Your task to perform on an android device: allow notifications from all sites in the chrome app Image 0: 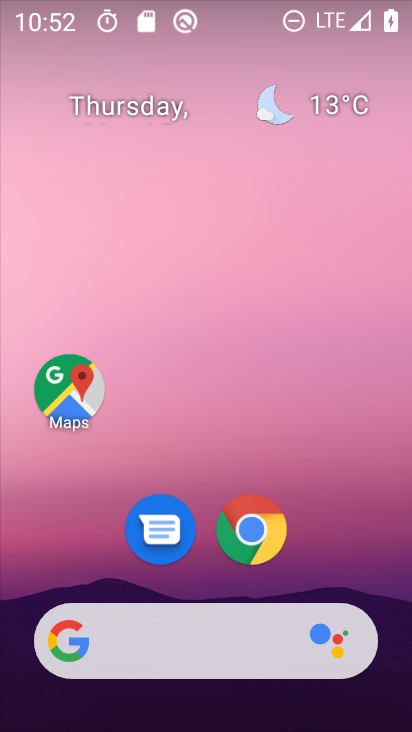
Step 0: click (272, 543)
Your task to perform on an android device: allow notifications from all sites in the chrome app Image 1: 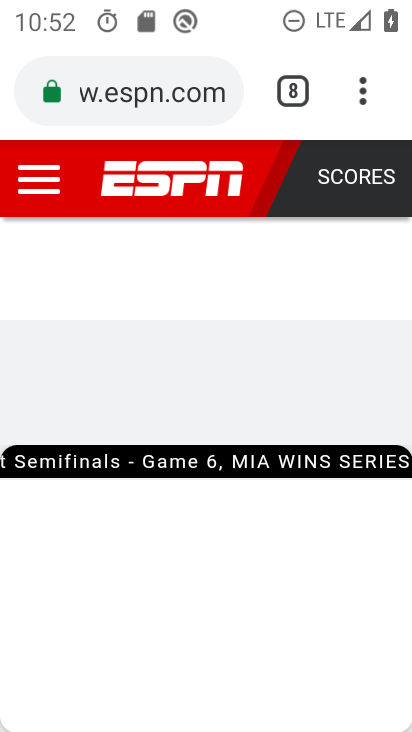
Step 1: click (362, 76)
Your task to perform on an android device: allow notifications from all sites in the chrome app Image 2: 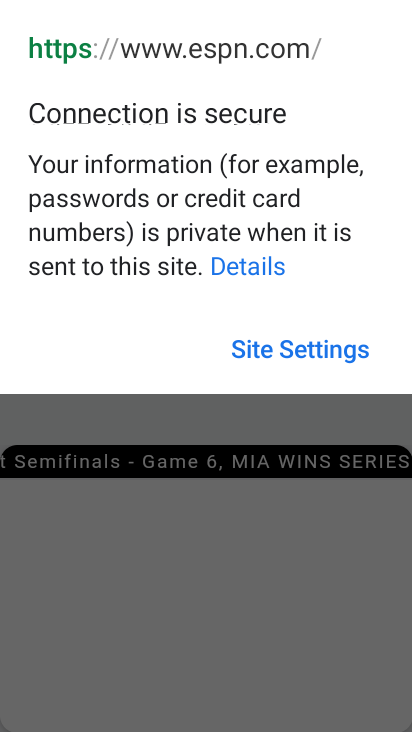
Step 2: press back button
Your task to perform on an android device: allow notifications from all sites in the chrome app Image 3: 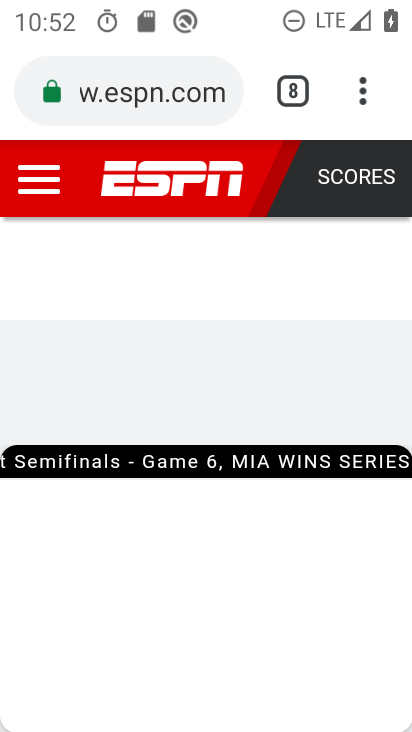
Step 3: click (369, 92)
Your task to perform on an android device: allow notifications from all sites in the chrome app Image 4: 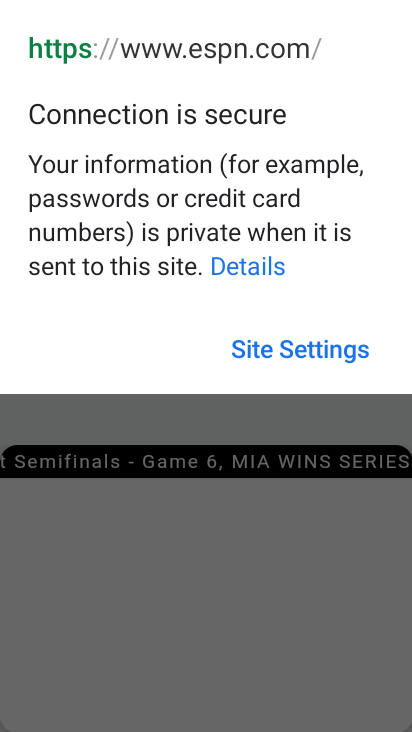
Step 4: press back button
Your task to perform on an android device: allow notifications from all sites in the chrome app Image 5: 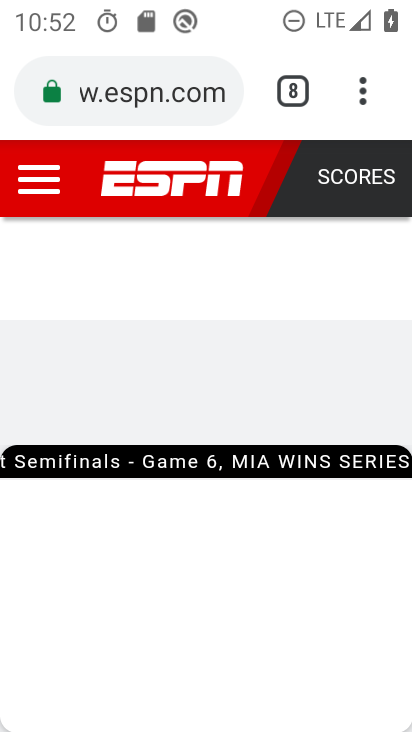
Step 5: click (360, 79)
Your task to perform on an android device: allow notifications from all sites in the chrome app Image 6: 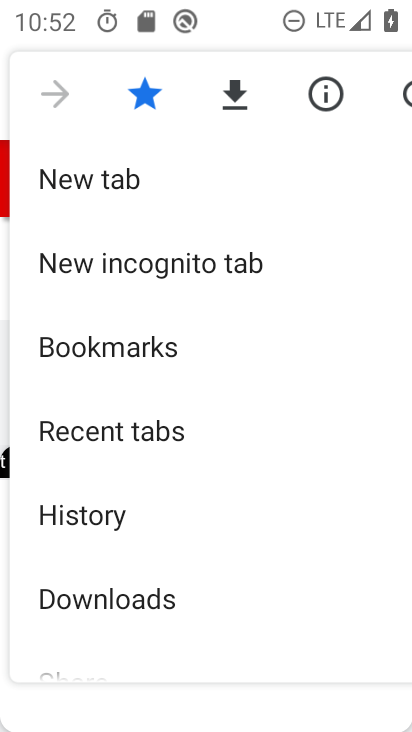
Step 6: drag from (247, 578) to (115, 247)
Your task to perform on an android device: allow notifications from all sites in the chrome app Image 7: 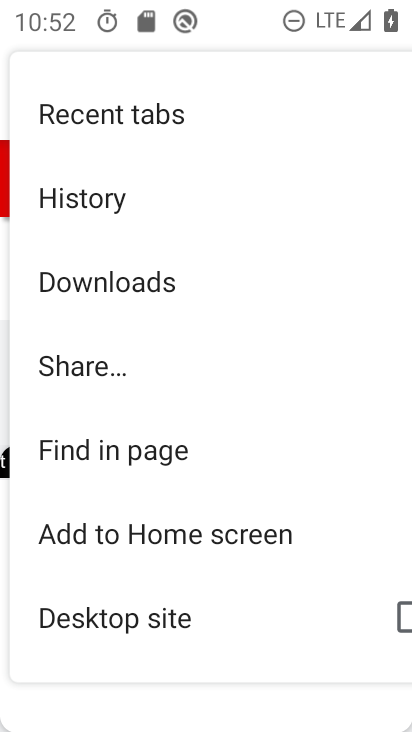
Step 7: drag from (262, 581) to (145, 185)
Your task to perform on an android device: allow notifications from all sites in the chrome app Image 8: 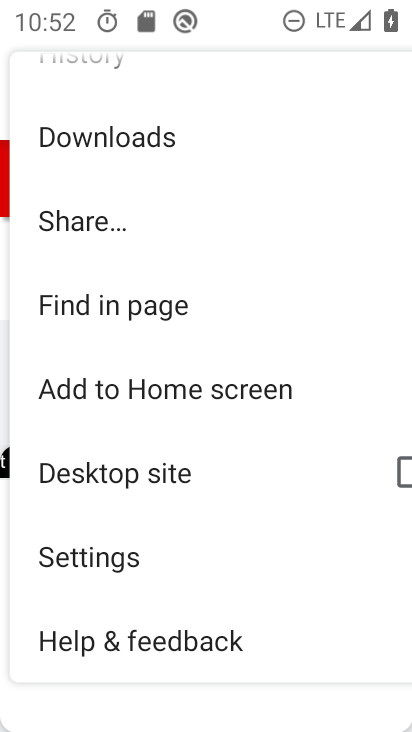
Step 8: click (222, 556)
Your task to perform on an android device: allow notifications from all sites in the chrome app Image 9: 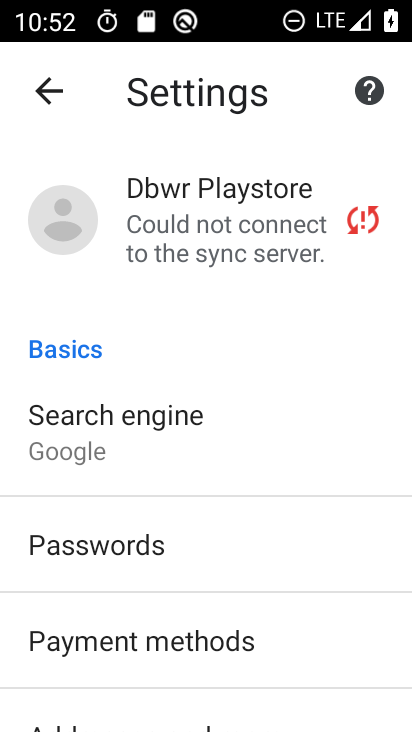
Step 9: drag from (286, 614) to (171, 259)
Your task to perform on an android device: allow notifications from all sites in the chrome app Image 10: 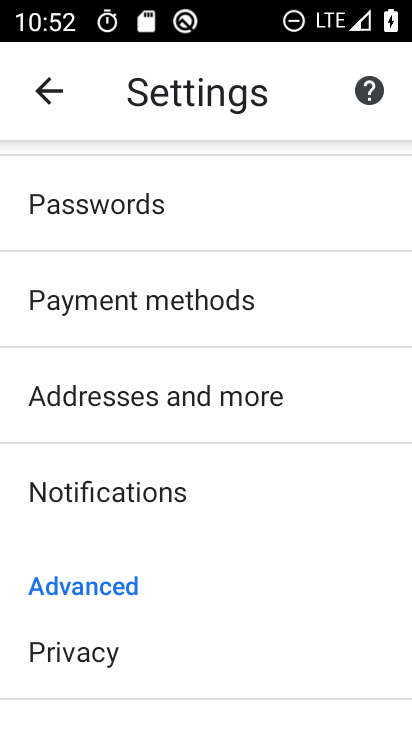
Step 10: drag from (270, 583) to (220, 454)
Your task to perform on an android device: allow notifications from all sites in the chrome app Image 11: 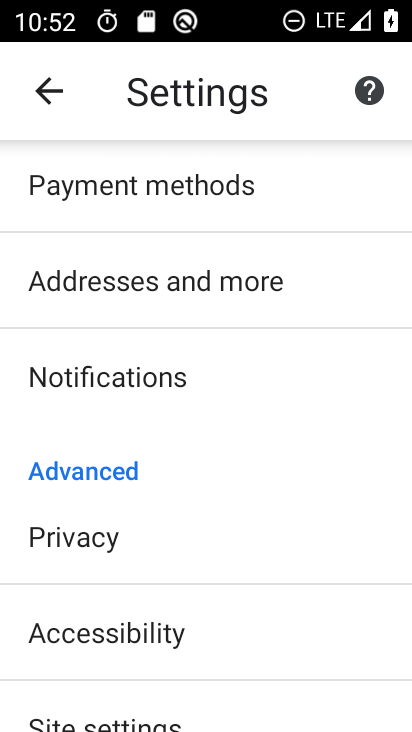
Step 11: click (205, 340)
Your task to perform on an android device: allow notifications from all sites in the chrome app Image 12: 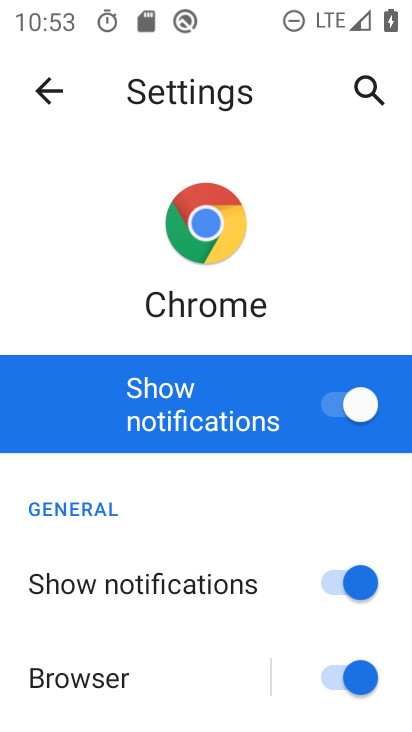
Step 12: task complete